Your task to perform on an android device: Check the weather Image 0: 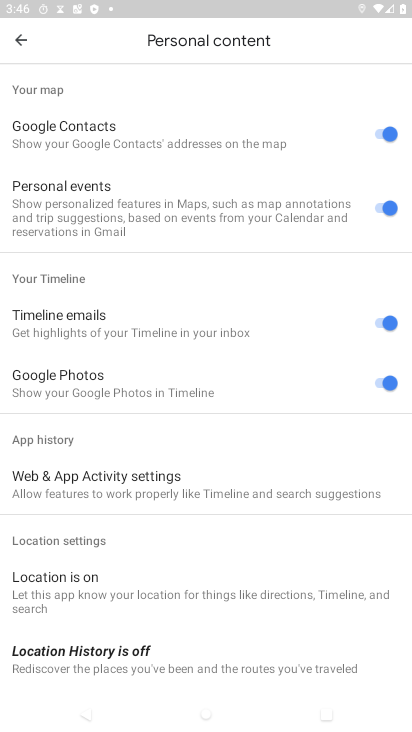
Step 0: press home button
Your task to perform on an android device: Check the weather Image 1: 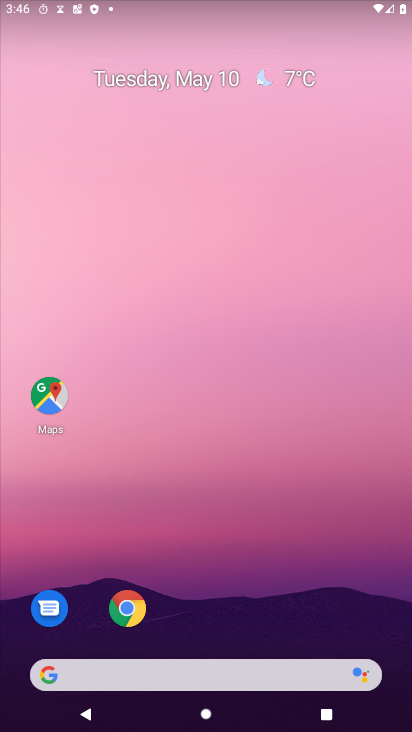
Step 1: click (293, 82)
Your task to perform on an android device: Check the weather Image 2: 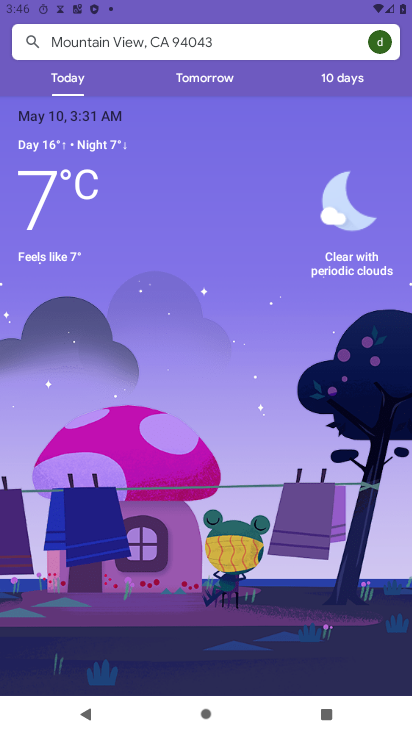
Step 2: task complete